Your task to perform on an android device: Open Google Chrome Image 0: 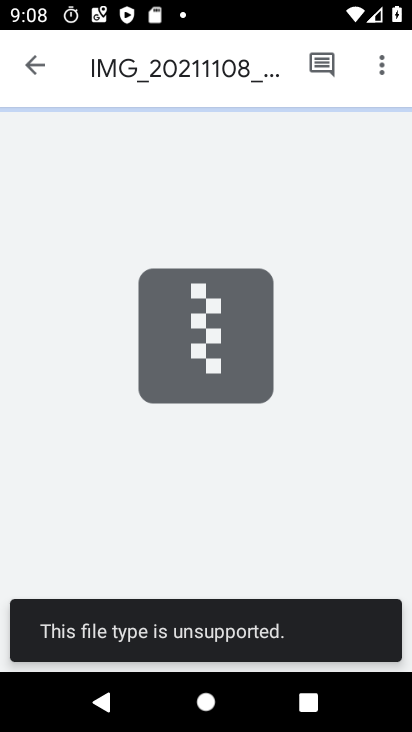
Step 0: press back button
Your task to perform on an android device: Open Google Chrome Image 1: 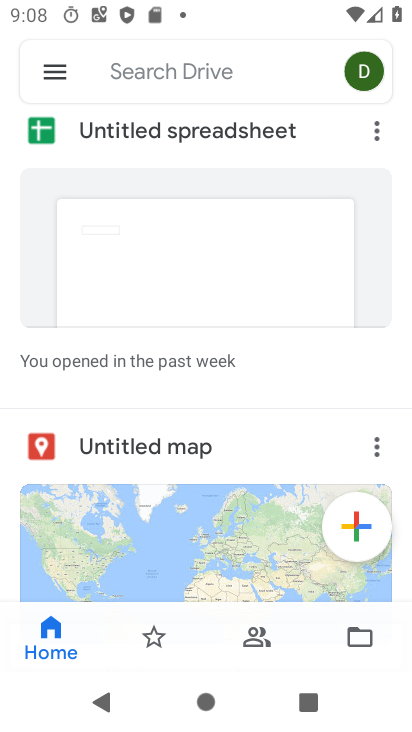
Step 1: press home button
Your task to perform on an android device: Open Google Chrome Image 2: 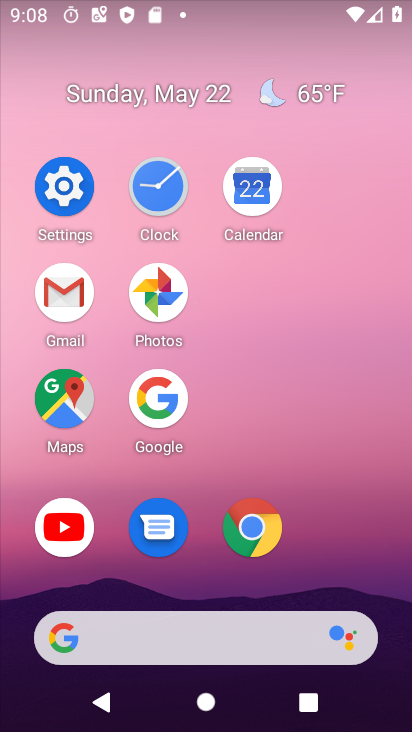
Step 2: click (266, 536)
Your task to perform on an android device: Open Google Chrome Image 3: 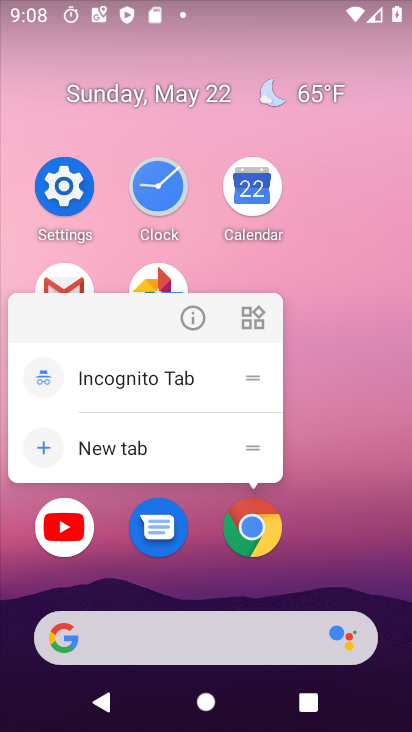
Step 3: click (265, 532)
Your task to perform on an android device: Open Google Chrome Image 4: 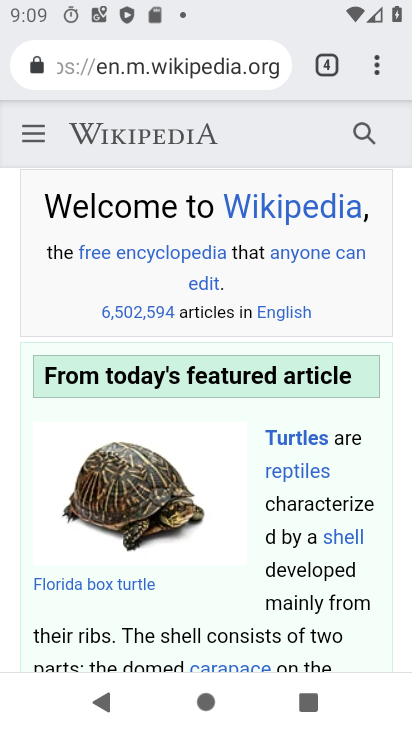
Step 4: task complete